Your task to perform on an android device: Is it going to rain tomorrow? Image 0: 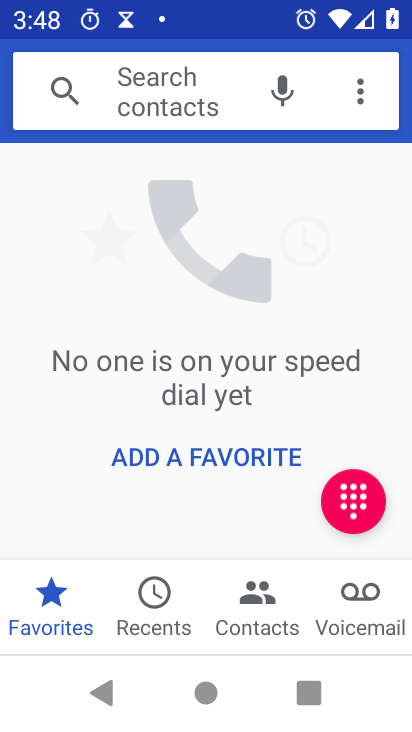
Step 0: press home button
Your task to perform on an android device: Is it going to rain tomorrow? Image 1: 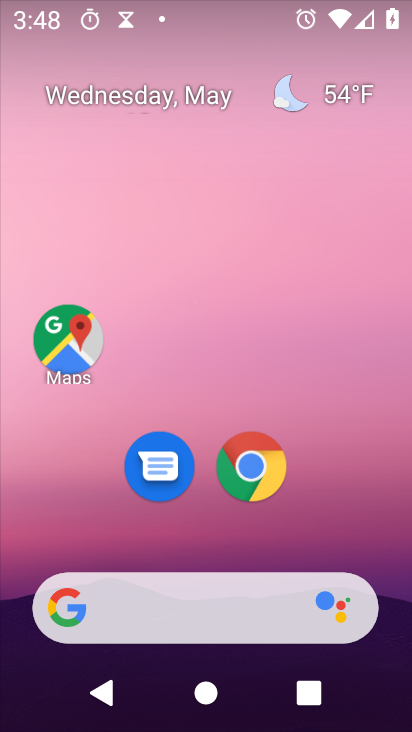
Step 1: drag from (272, 726) to (277, 676)
Your task to perform on an android device: Is it going to rain tomorrow? Image 2: 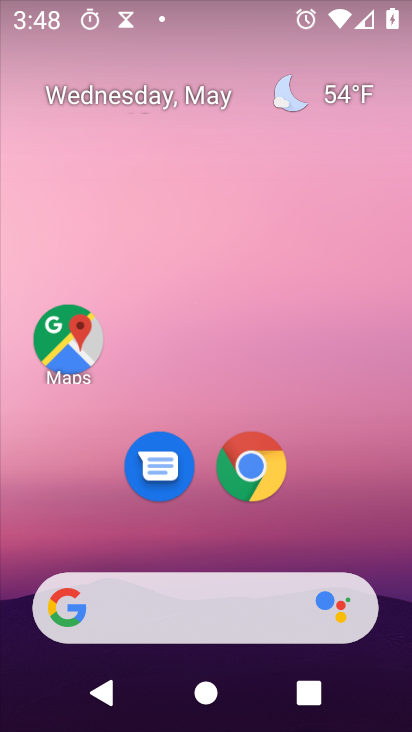
Step 2: click (237, 454)
Your task to perform on an android device: Is it going to rain tomorrow? Image 3: 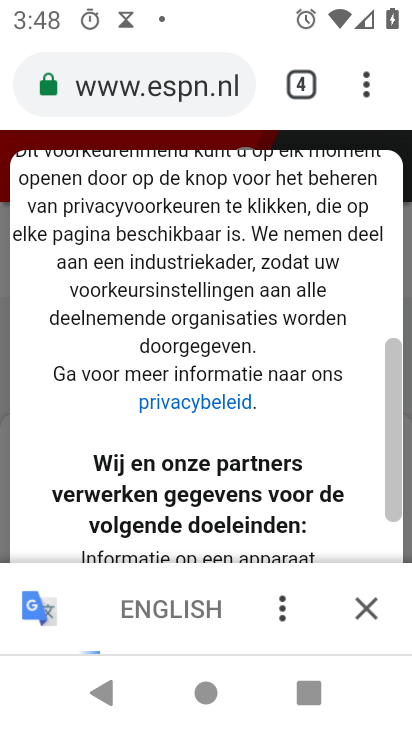
Step 3: click (196, 76)
Your task to perform on an android device: Is it going to rain tomorrow? Image 4: 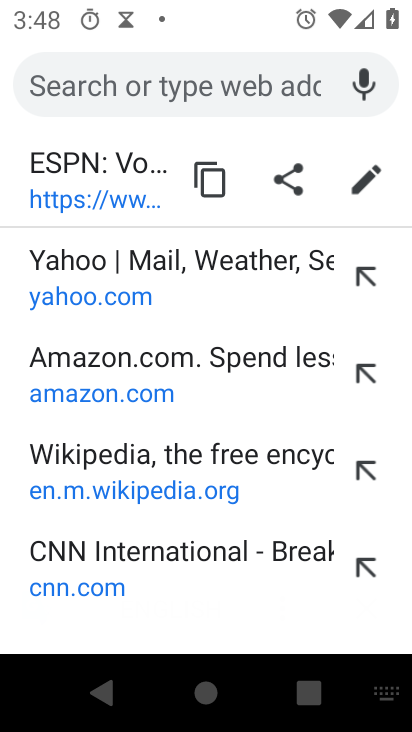
Step 4: type "Is it going to rain tomorrow?"
Your task to perform on an android device: Is it going to rain tomorrow? Image 5: 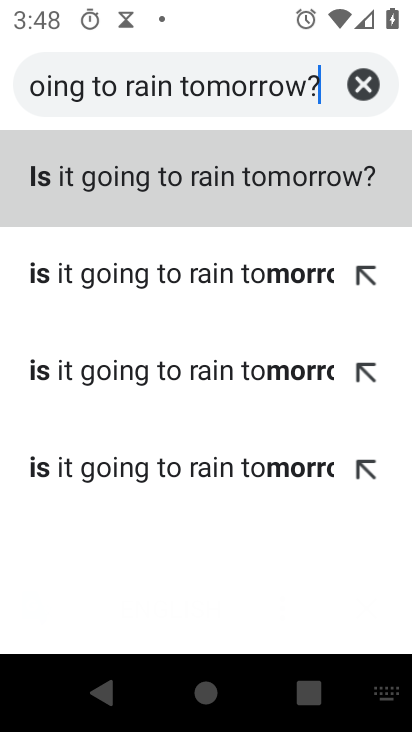
Step 5: click (265, 176)
Your task to perform on an android device: Is it going to rain tomorrow? Image 6: 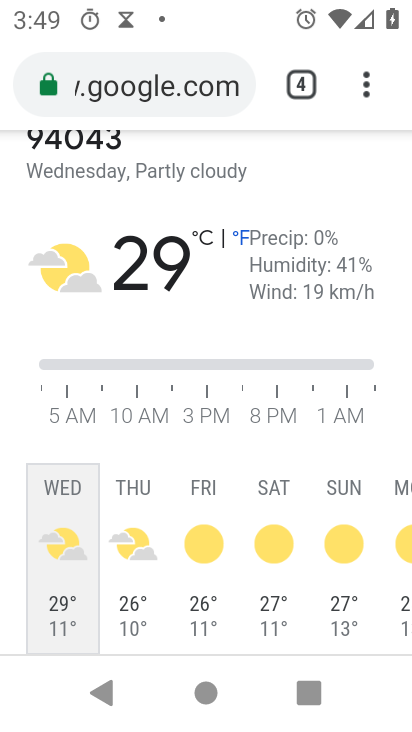
Step 6: task complete